Your task to perform on an android device: turn off smart reply in the gmail app Image 0: 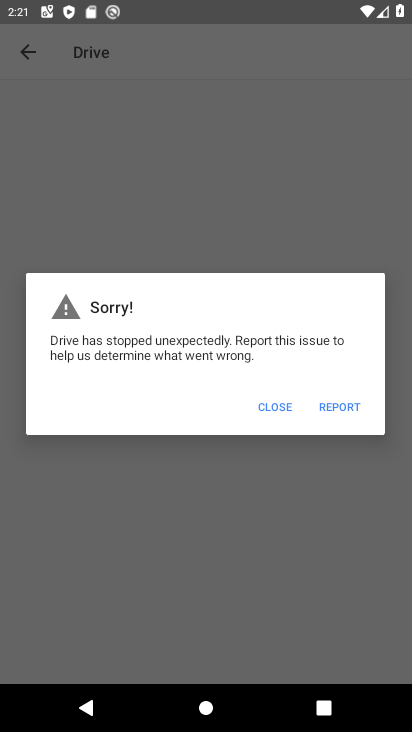
Step 0: press home button
Your task to perform on an android device: turn off smart reply in the gmail app Image 1: 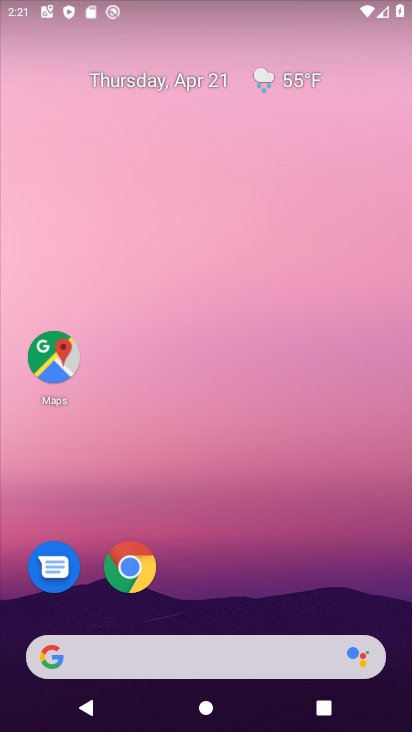
Step 1: drag from (245, 622) to (218, 31)
Your task to perform on an android device: turn off smart reply in the gmail app Image 2: 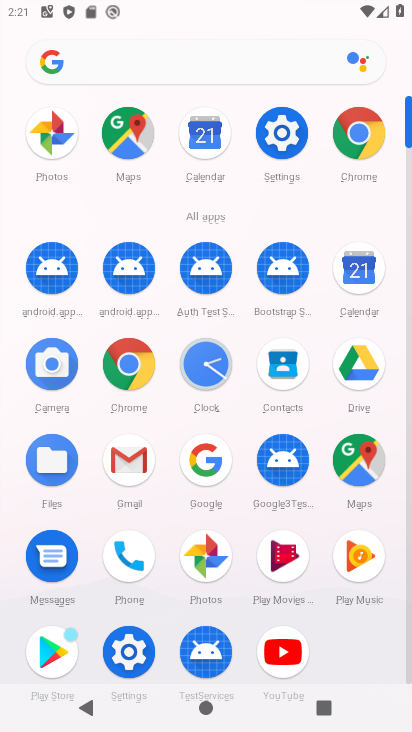
Step 2: click (121, 460)
Your task to perform on an android device: turn off smart reply in the gmail app Image 3: 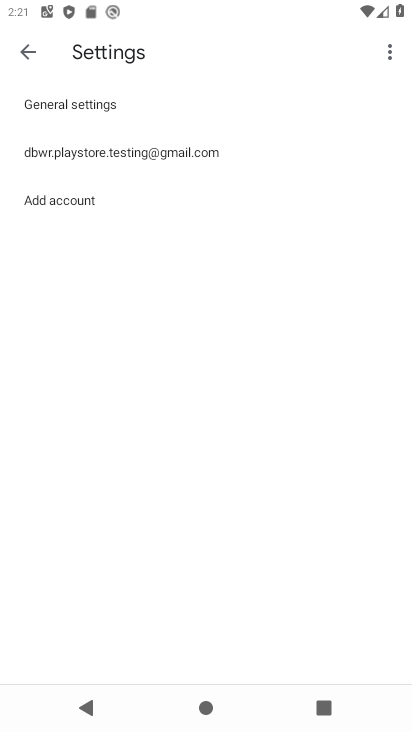
Step 3: click (24, 50)
Your task to perform on an android device: turn off smart reply in the gmail app Image 4: 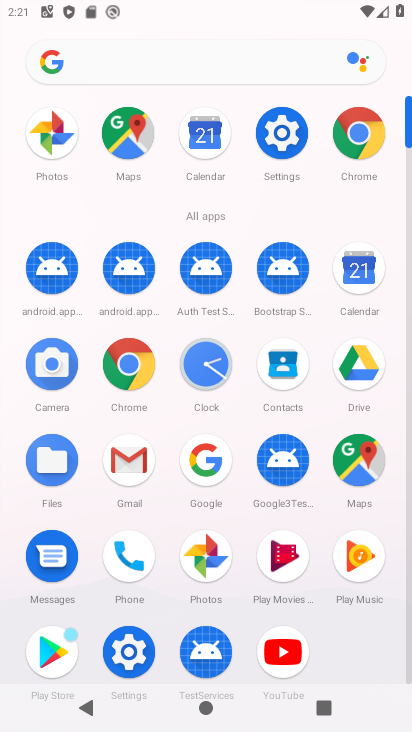
Step 4: click (131, 455)
Your task to perform on an android device: turn off smart reply in the gmail app Image 5: 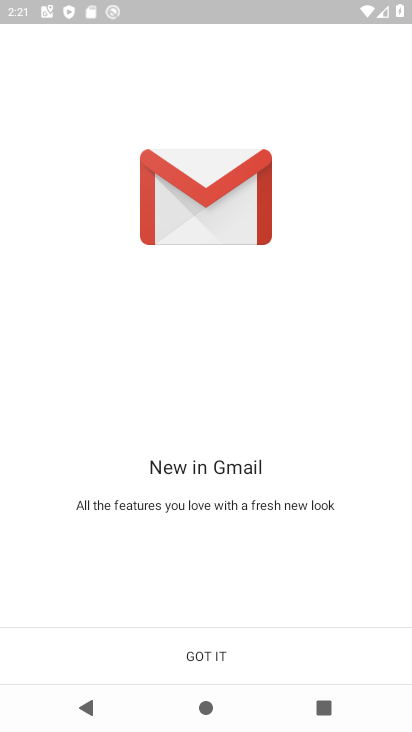
Step 5: click (200, 657)
Your task to perform on an android device: turn off smart reply in the gmail app Image 6: 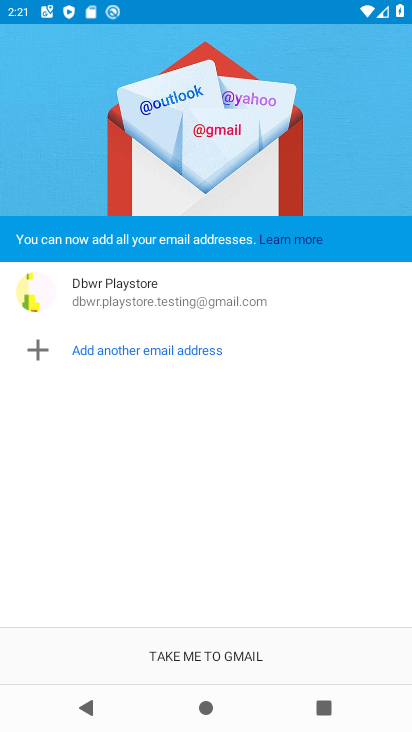
Step 6: click (200, 657)
Your task to perform on an android device: turn off smart reply in the gmail app Image 7: 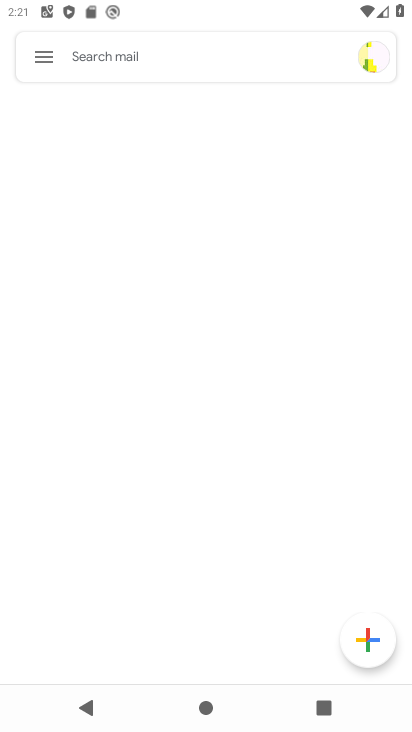
Step 7: click (40, 64)
Your task to perform on an android device: turn off smart reply in the gmail app Image 8: 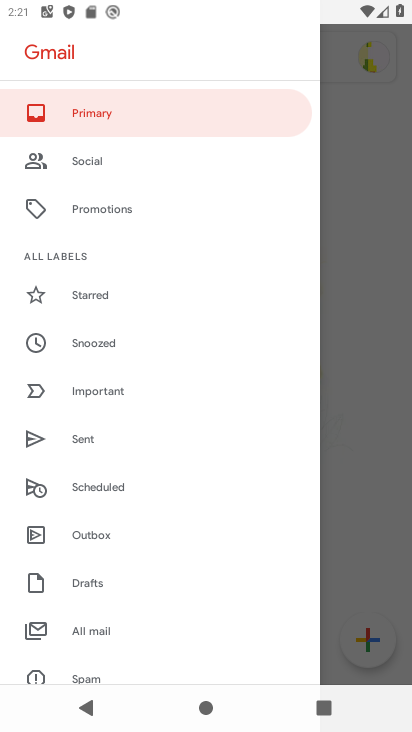
Step 8: drag from (238, 645) to (225, 268)
Your task to perform on an android device: turn off smart reply in the gmail app Image 9: 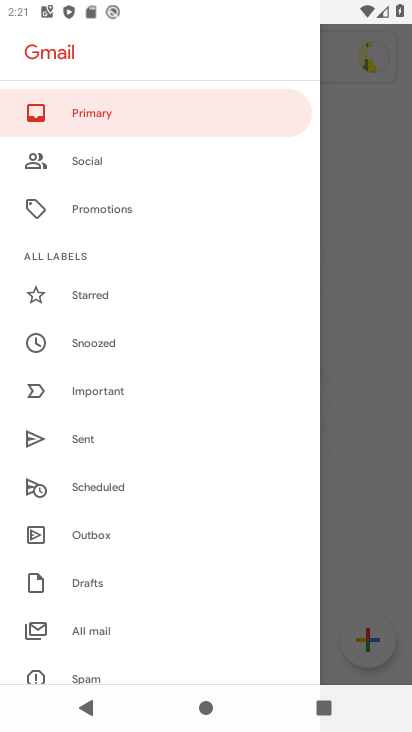
Step 9: drag from (228, 579) to (234, 225)
Your task to perform on an android device: turn off smart reply in the gmail app Image 10: 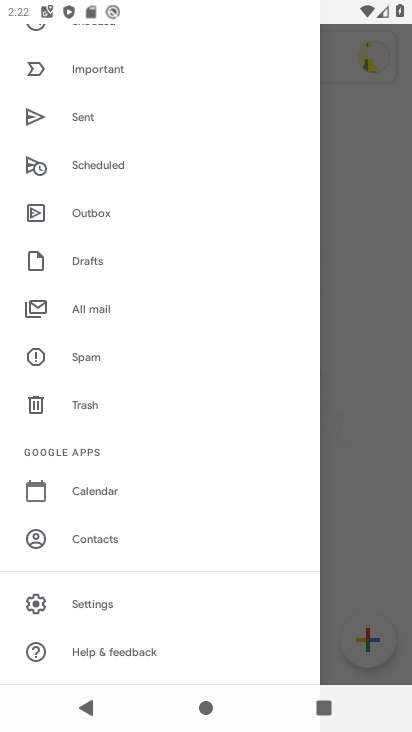
Step 10: click (94, 604)
Your task to perform on an android device: turn off smart reply in the gmail app Image 11: 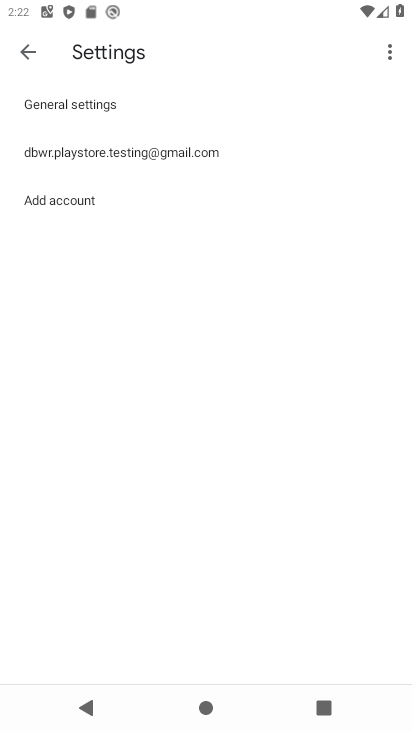
Step 11: click (172, 149)
Your task to perform on an android device: turn off smart reply in the gmail app Image 12: 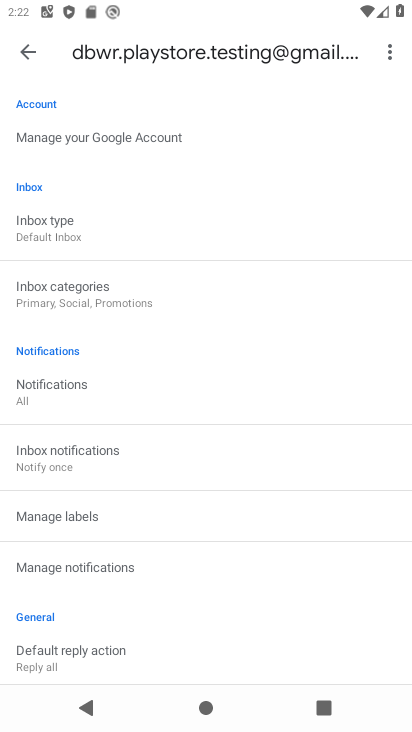
Step 12: drag from (251, 608) to (221, 198)
Your task to perform on an android device: turn off smart reply in the gmail app Image 13: 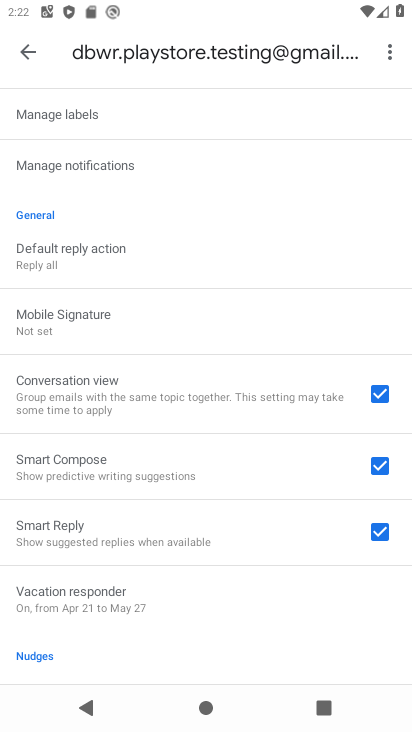
Step 13: click (378, 524)
Your task to perform on an android device: turn off smart reply in the gmail app Image 14: 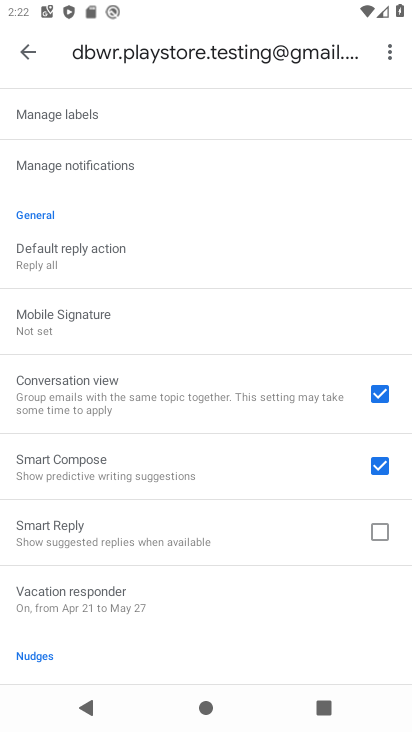
Step 14: task complete